Your task to perform on an android device: What's the weather today? Image 0: 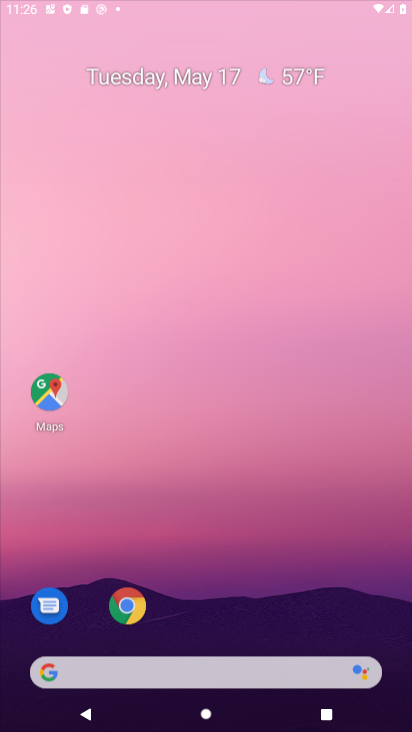
Step 0: click (134, 607)
Your task to perform on an android device: What's the weather today? Image 1: 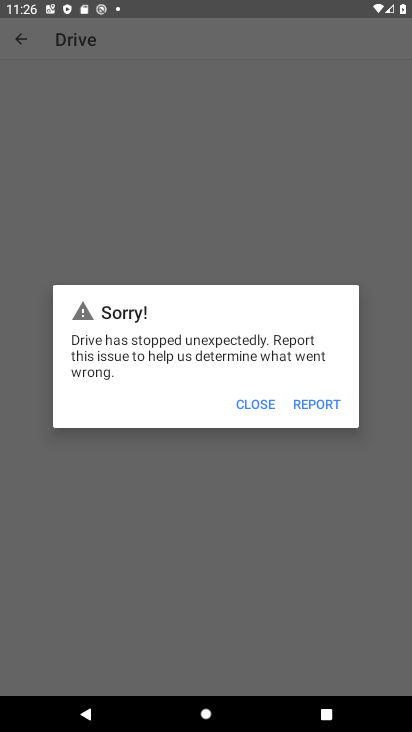
Step 1: click (262, 404)
Your task to perform on an android device: What's the weather today? Image 2: 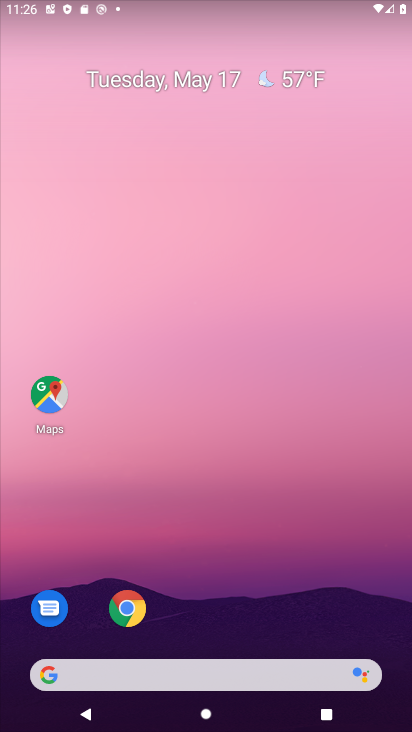
Step 2: click (164, 665)
Your task to perform on an android device: What's the weather today? Image 3: 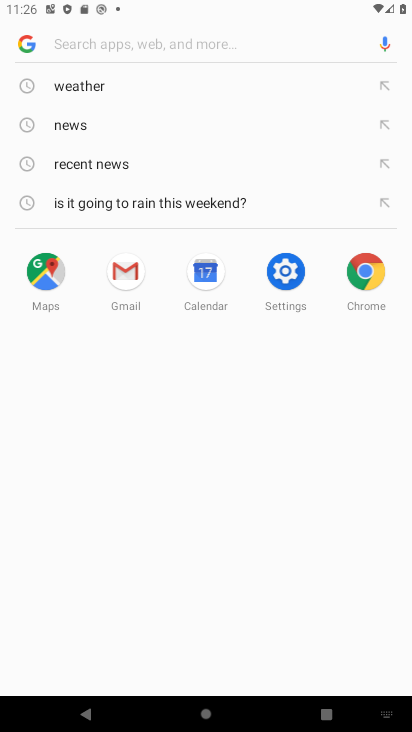
Step 3: click (96, 84)
Your task to perform on an android device: What's the weather today? Image 4: 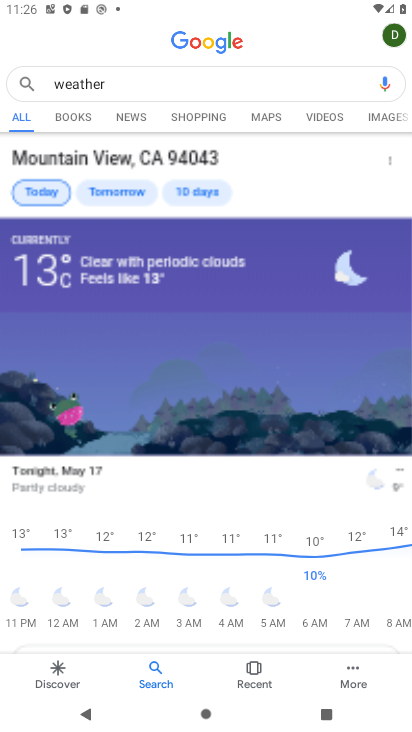
Step 4: task complete